Your task to perform on an android device: Turn off the flashlight Image 0: 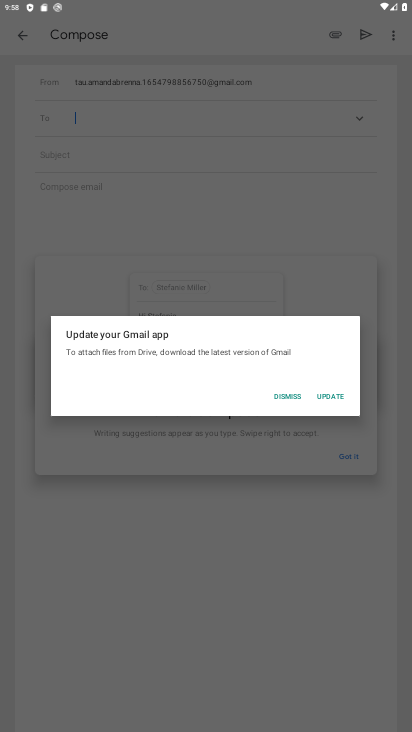
Step 0: press home button
Your task to perform on an android device: Turn off the flashlight Image 1: 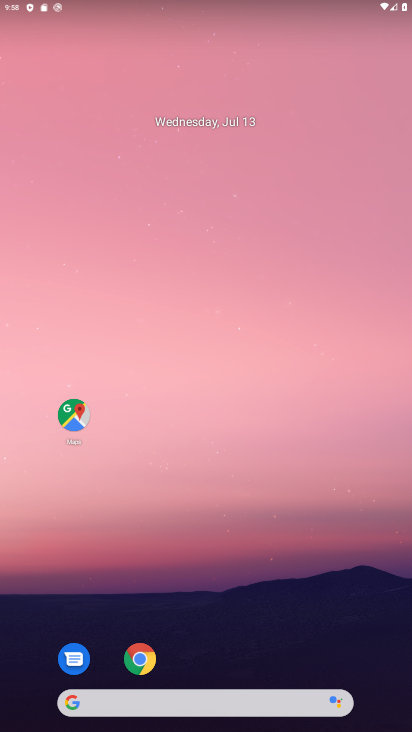
Step 1: drag from (267, 3) to (274, 441)
Your task to perform on an android device: Turn off the flashlight Image 2: 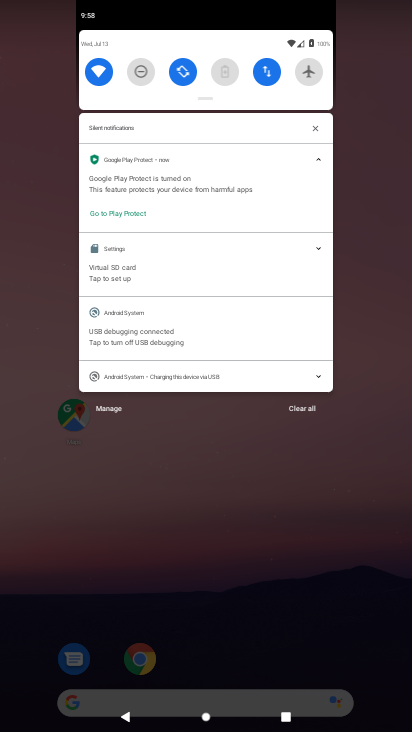
Step 2: drag from (202, 81) to (224, 486)
Your task to perform on an android device: Turn off the flashlight Image 3: 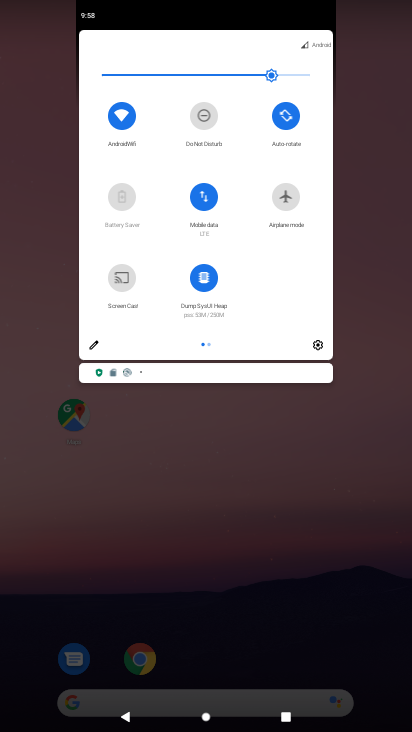
Step 3: click (97, 343)
Your task to perform on an android device: Turn off the flashlight Image 4: 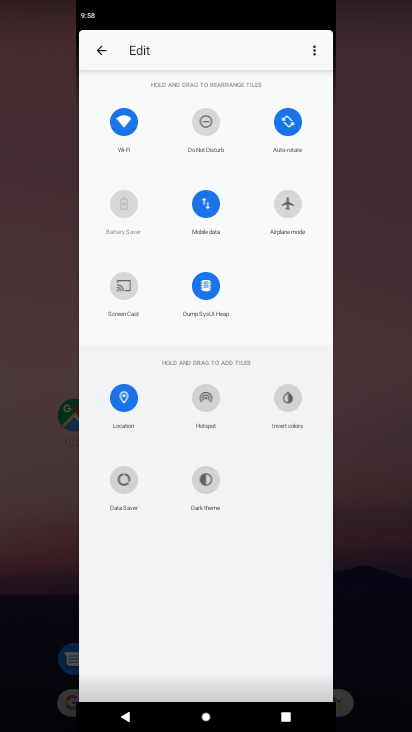
Step 4: task complete